Your task to perform on an android device: check the backup settings in the google photos Image 0: 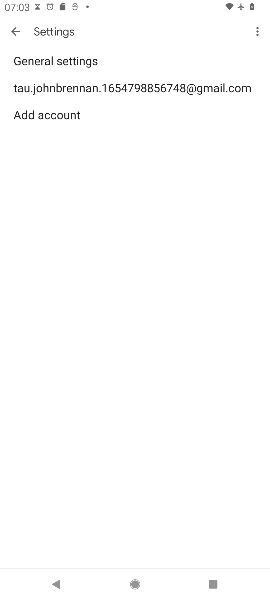
Step 0: press home button
Your task to perform on an android device: check the backup settings in the google photos Image 1: 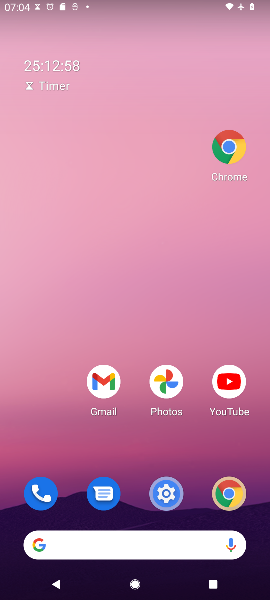
Step 1: click (167, 380)
Your task to perform on an android device: check the backup settings in the google photos Image 2: 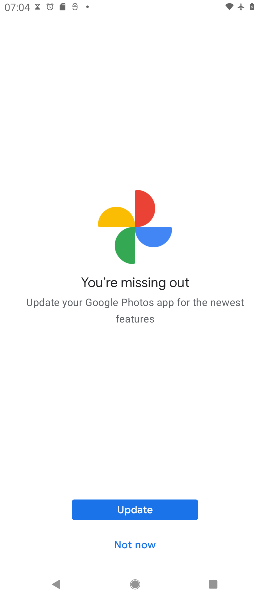
Step 2: click (128, 504)
Your task to perform on an android device: check the backup settings in the google photos Image 3: 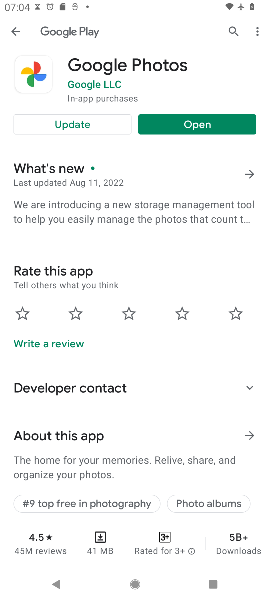
Step 3: click (64, 120)
Your task to perform on an android device: check the backup settings in the google photos Image 4: 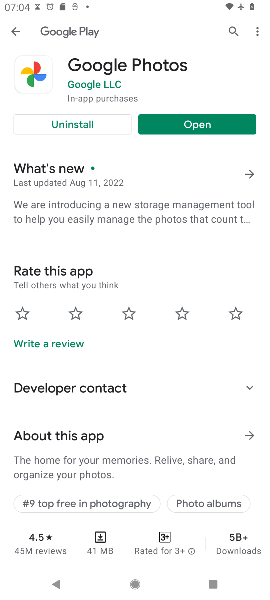
Step 4: click (205, 124)
Your task to perform on an android device: check the backup settings in the google photos Image 5: 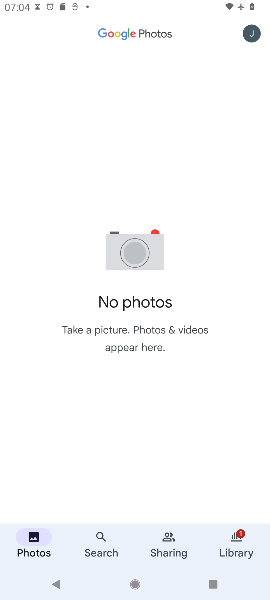
Step 5: click (251, 34)
Your task to perform on an android device: check the backup settings in the google photos Image 6: 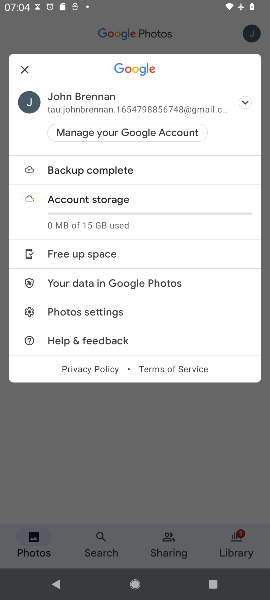
Step 6: click (72, 316)
Your task to perform on an android device: check the backup settings in the google photos Image 7: 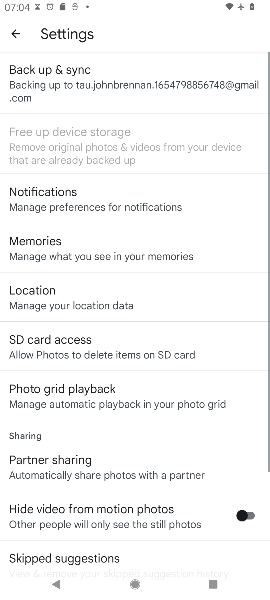
Step 7: click (66, 70)
Your task to perform on an android device: check the backup settings in the google photos Image 8: 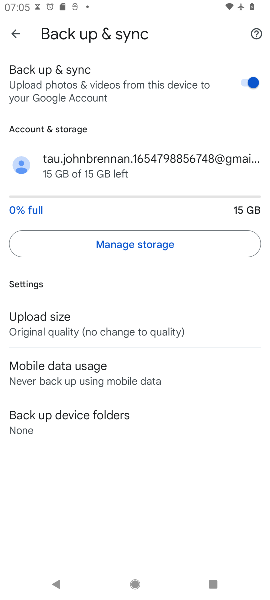
Step 8: task complete